Your task to perform on an android device: see sites visited before in the chrome app Image 0: 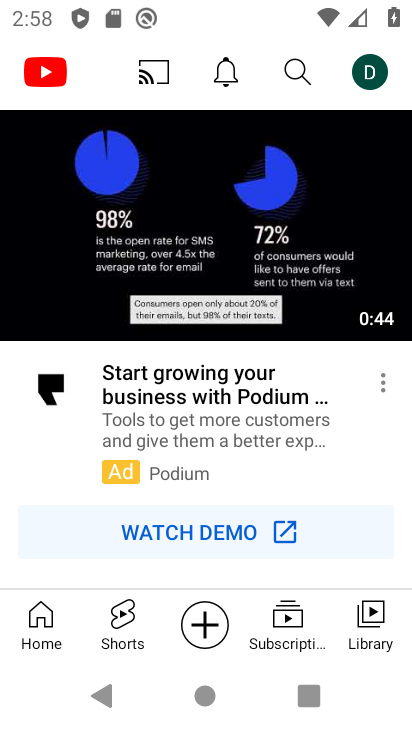
Step 0: press home button
Your task to perform on an android device: see sites visited before in the chrome app Image 1: 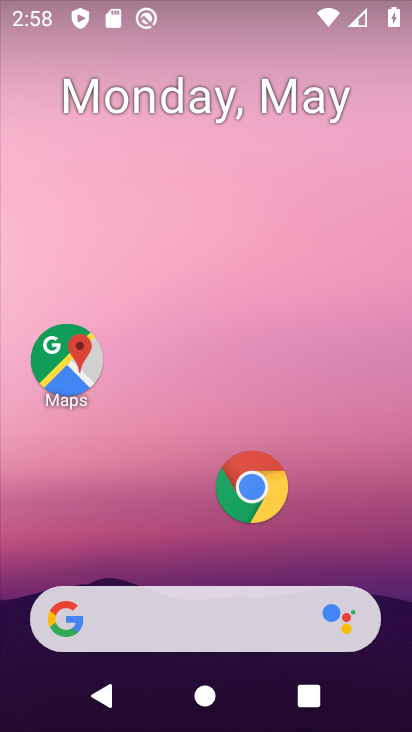
Step 1: click (255, 480)
Your task to perform on an android device: see sites visited before in the chrome app Image 2: 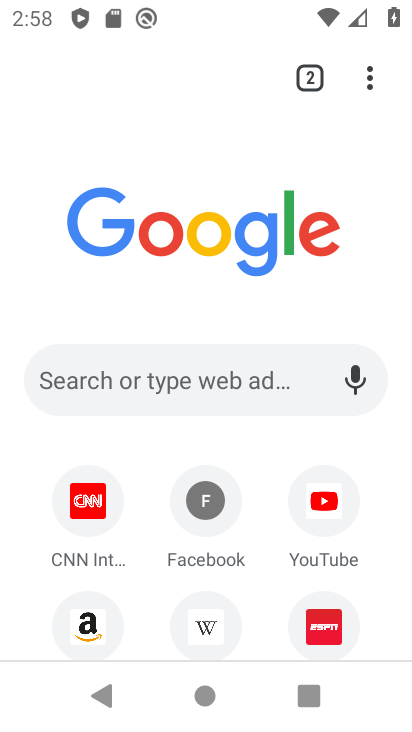
Step 2: click (369, 72)
Your task to perform on an android device: see sites visited before in the chrome app Image 3: 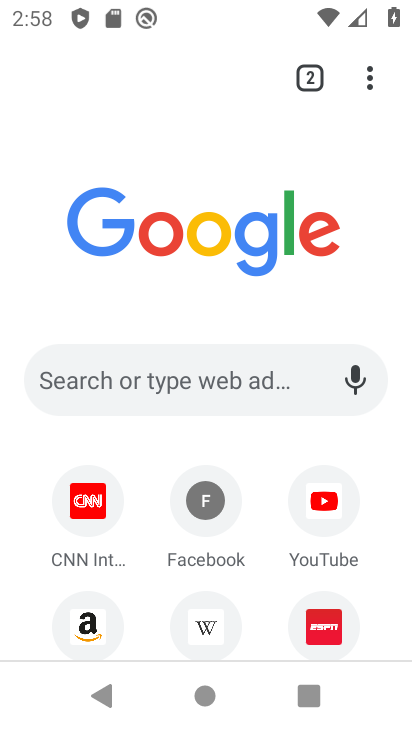
Step 3: click (360, 80)
Your task to perform on an android device: see sites visited before in the chrome app Image 4: 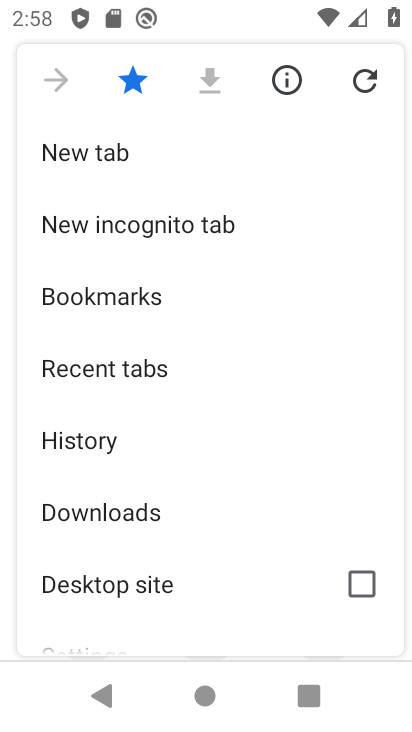
Step 4: click (123, 438)
Your task to perform on an android device: see sites visited before in the chrome app Image 5: 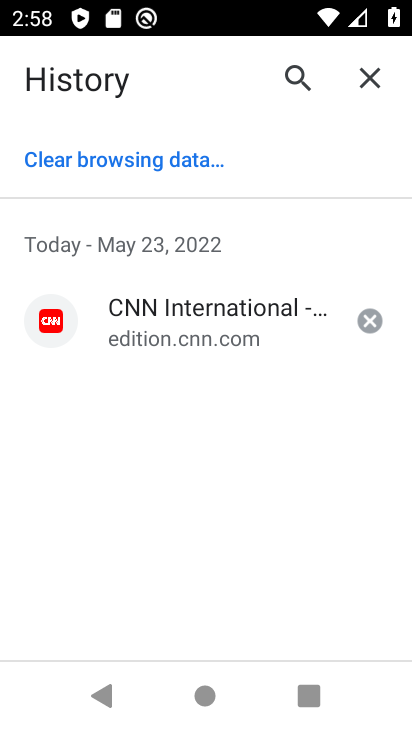
Step 5: task complete